Your task to perform on an android device: Open battery settings Image 0: 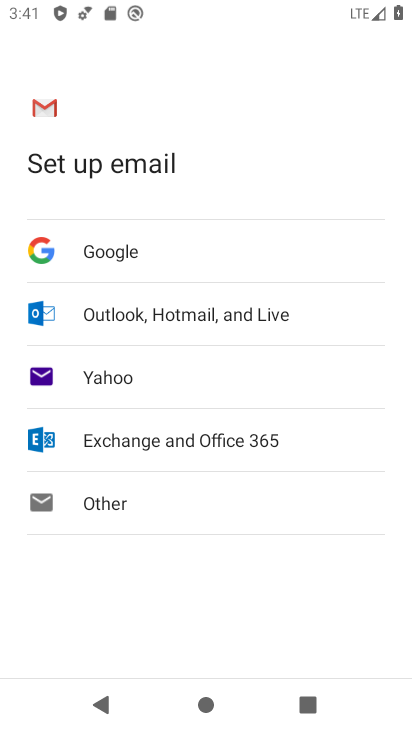
Step 0: press home button
Your task to perform on an android device: Open battery settings Image 1: 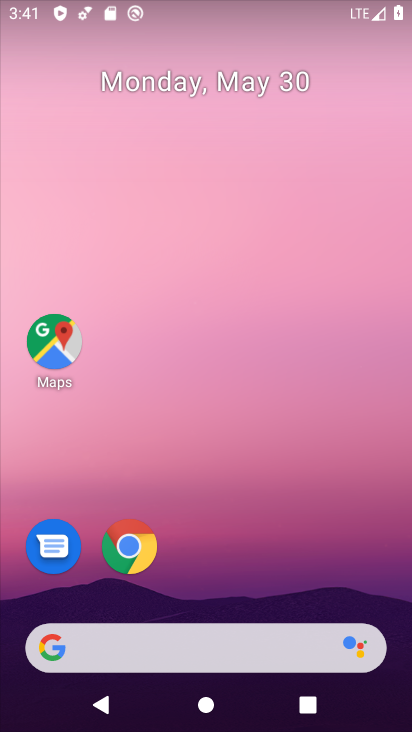
Step 1: drag from (224, 626) to (346, 27)
Your task to perform on an android device: Open battery settings Image 2: 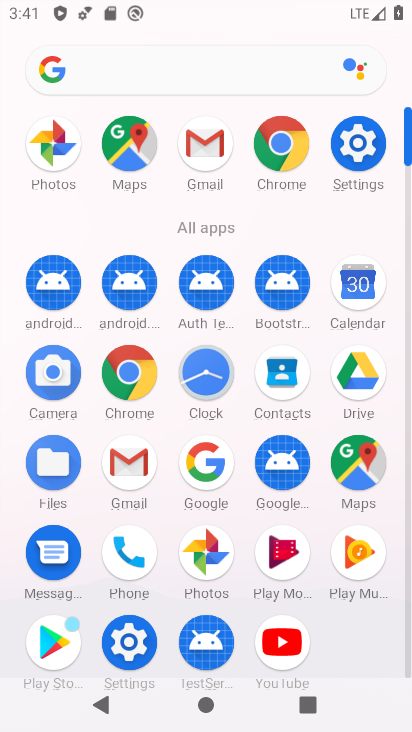
Step 2: click (364, 150)
Your task to perform on an android device: Open battery settings Image 3: 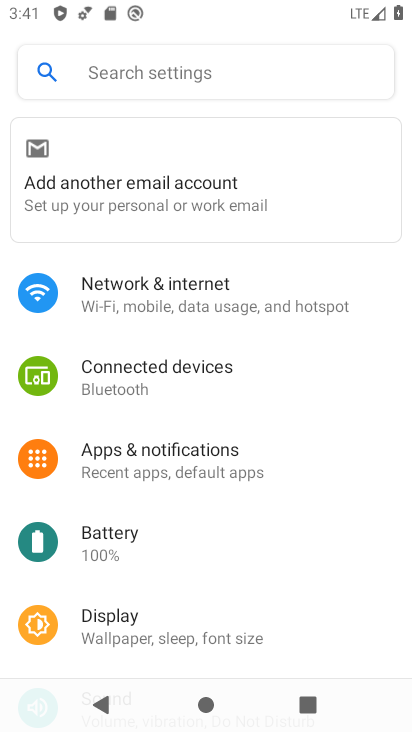
Step 3: click (157, 540)
Your task to perform on an android device: Open battery settings Image 4: 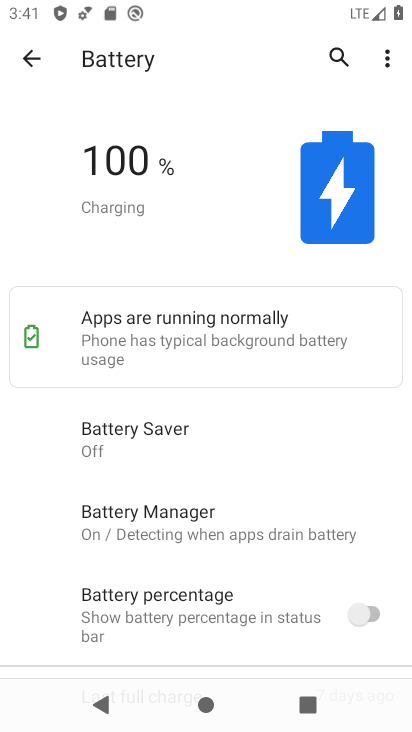
Step 4: task complete